Your task to perform on an android device: Open Reddit.com Image 0: 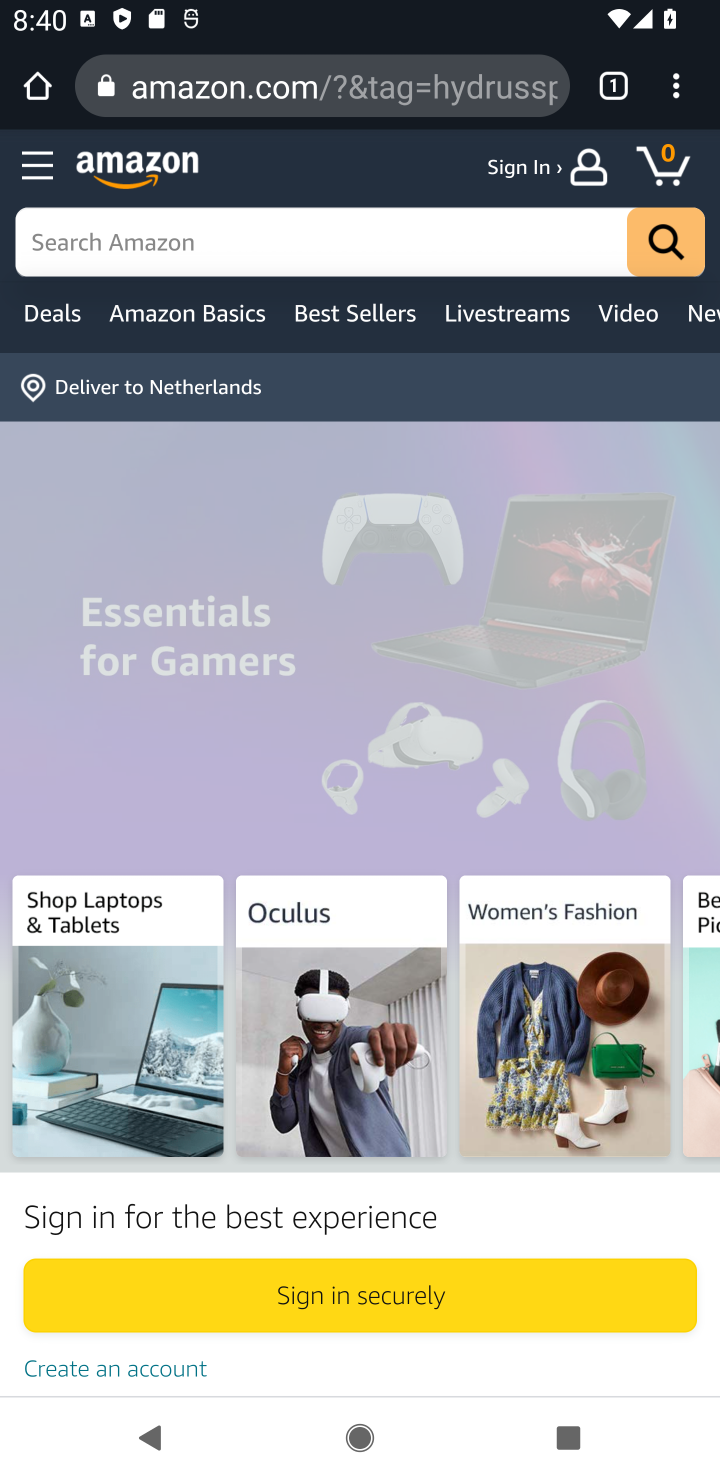
Step 0: click (507, 68)
Your task to perform on an android device: Open Reddit.com Image 1: 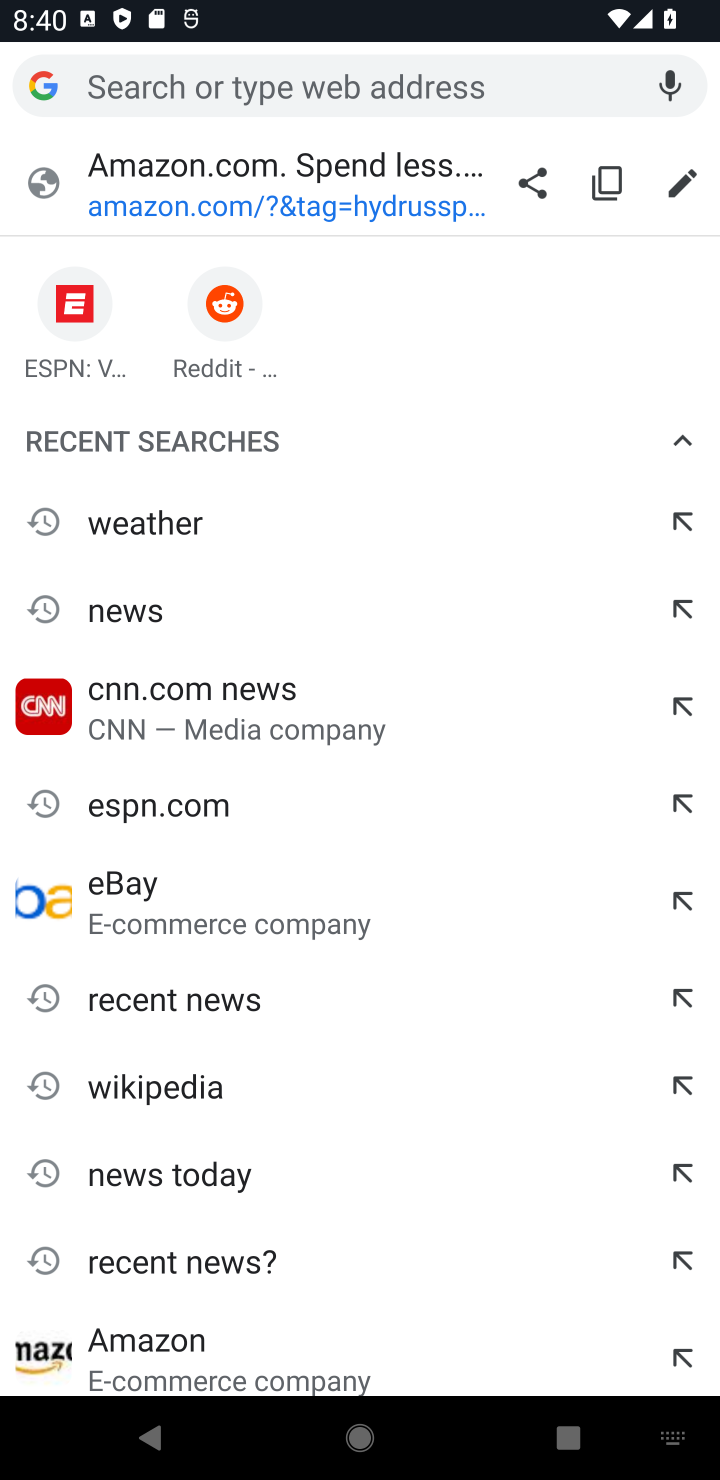
Step 1: type "reddit.com"
Your task to perform on an android device: Open Reddit.com Image 2: 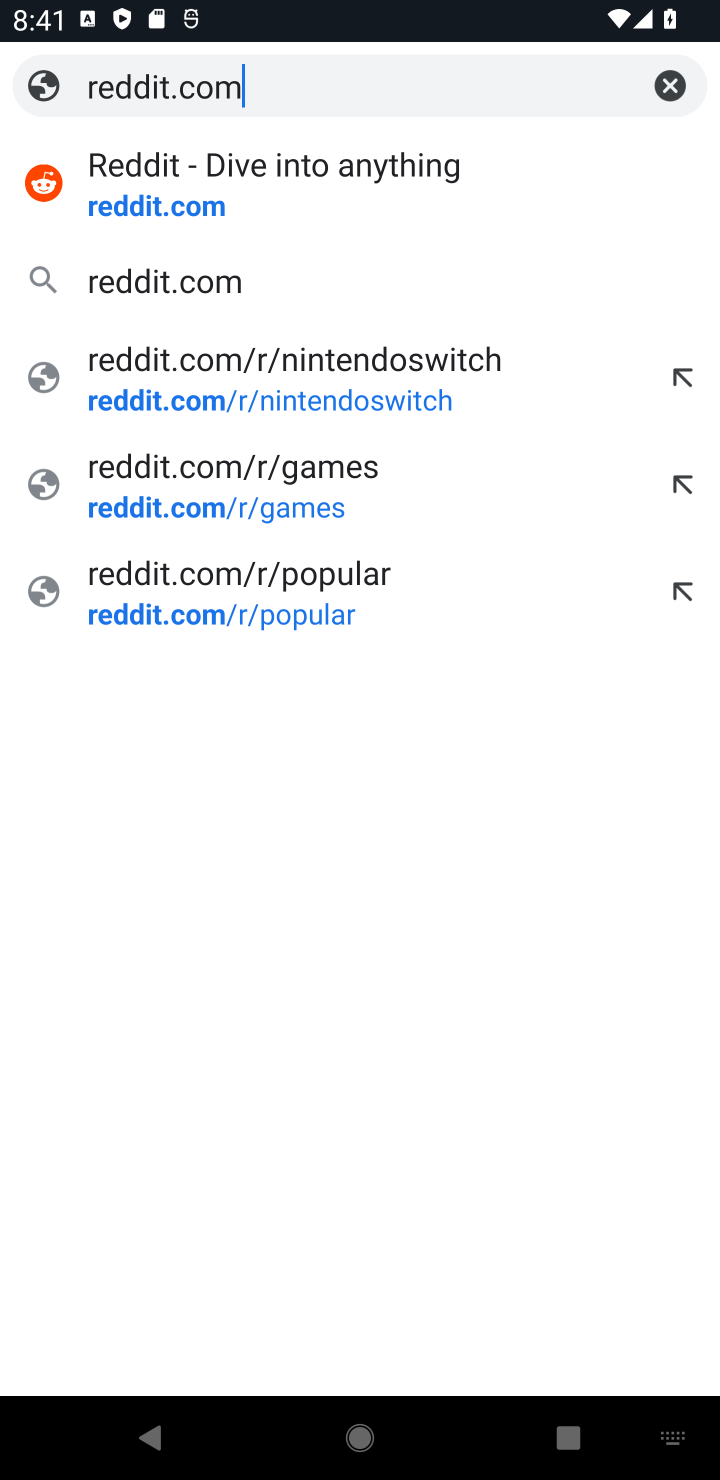
Step 2: click (135, 161)
Your task to perform on an android device: Open Reddit.com Image 3: 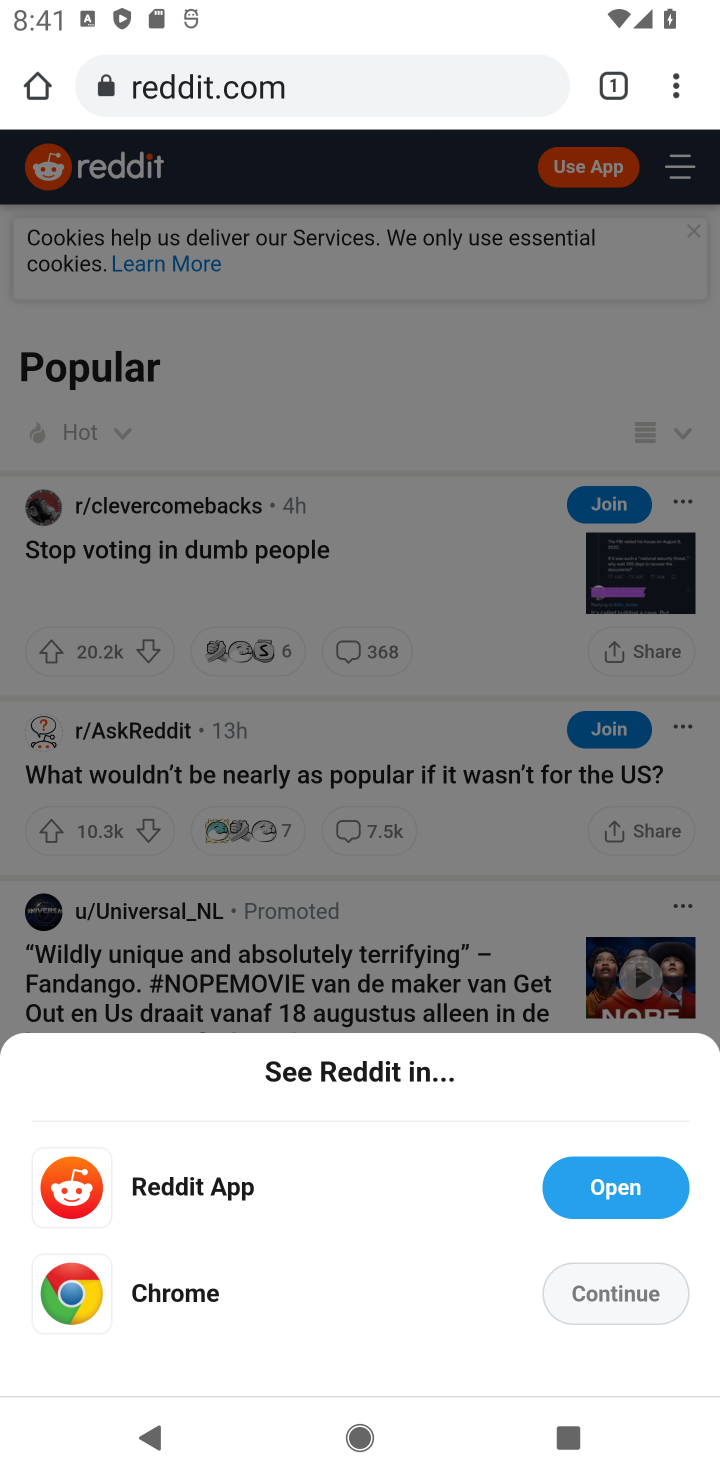
Step 3: task complete